Your task to perform on an android device: allow cookies in the chrome app Image 0: 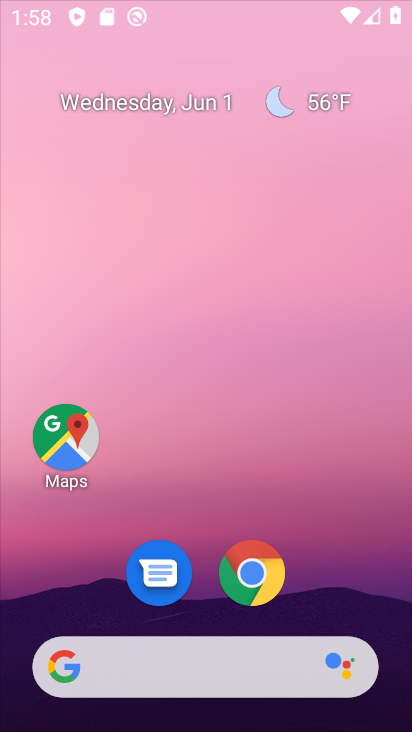
Step 0: drag from (208, 580) to (277, 91)
Your task to perform on an android device: allow cookies in the chrome app Image 1: 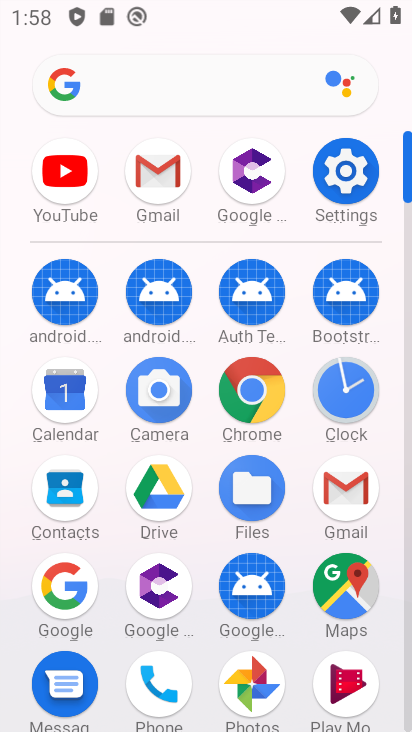
Step 1: click (244, 401)
Your task to perform on an android device: allow cookies in the chrome app Image 2: 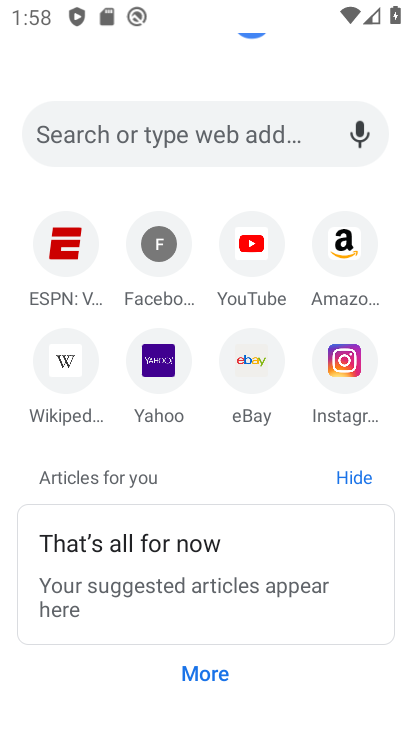
Step 2: drag from (238, 76) to (224, 462)
Your task to perform on an android device: allow cookies in the chrome app Image 3: 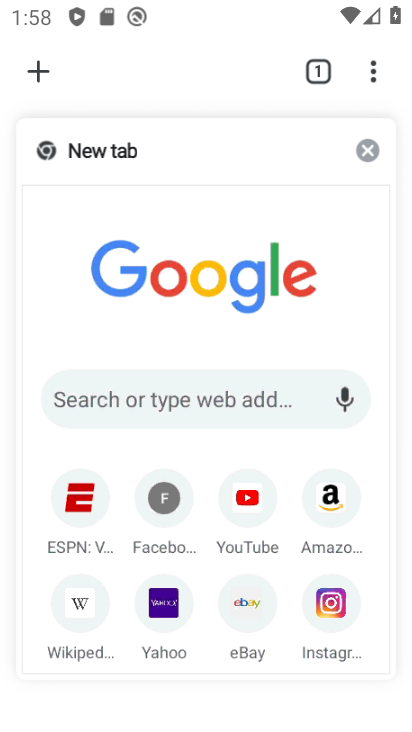
Step 3: click (282, 233)
Your task to perform on an android device: allow cookies in the chrome app Image 4: 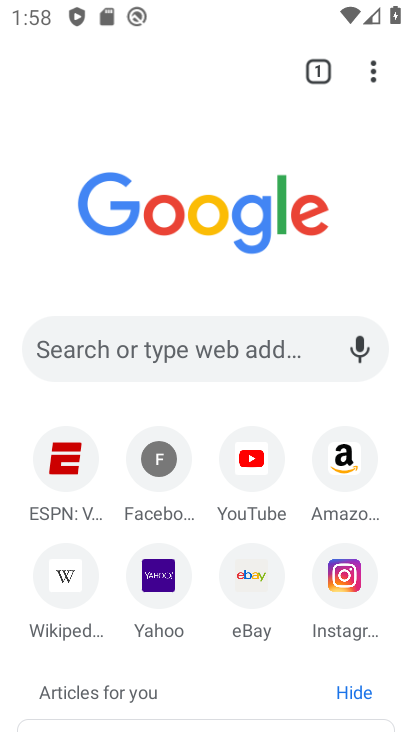
Step 4: click (368, 71)
Your task to perform on an android device: allow cookies in the chrome app Image 5: 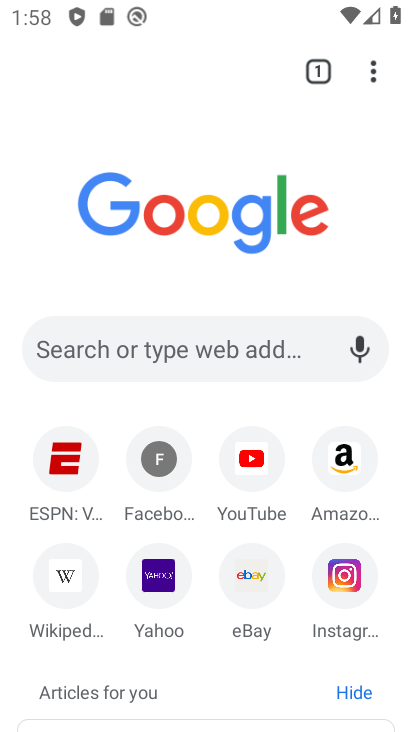
Step 5: click (371, 80)
Your task to perform on an android device: allow cookies in the chrome app Image 6: 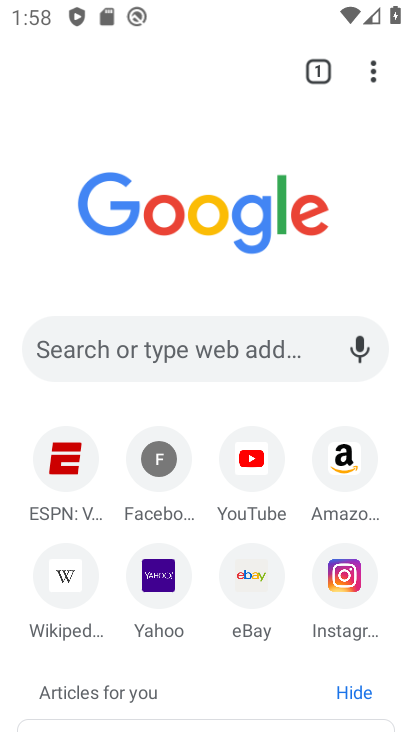
Step 6: click (367, 86)
Your task to perform on an android device: allow cookies in the chrome app Image 7: 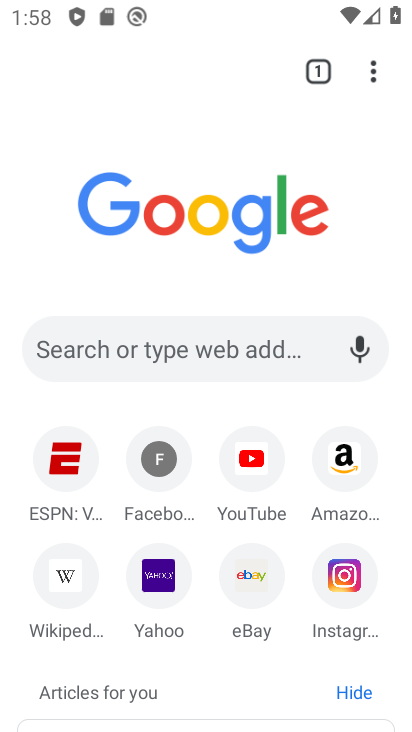
Step 7: drag from (367, 74) to (165, 587)
Your task to perform on an android device: allow cookies in the chrome app Image 8: 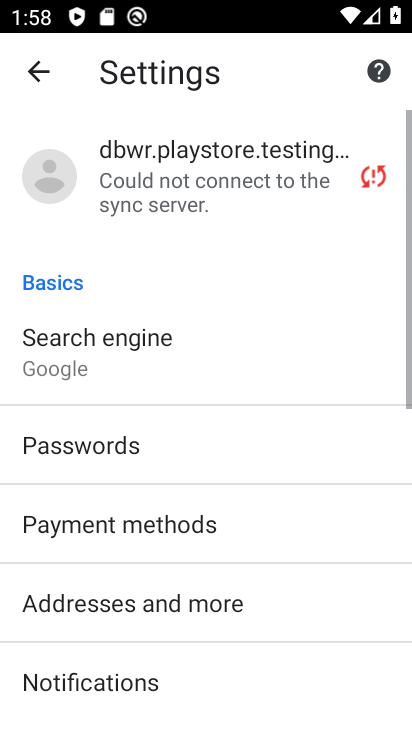
Step 8: drag from (167, 579) to (240, 224)
Your task to perform on an android device: allow cookies in the chrome app Image 9: 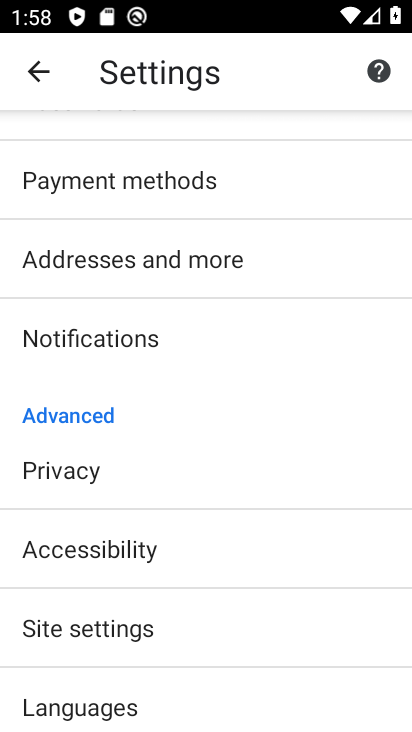
Step 9: click (104, 621)
Your task to perform on an android device: allow cookies in the chrome app Image 10: 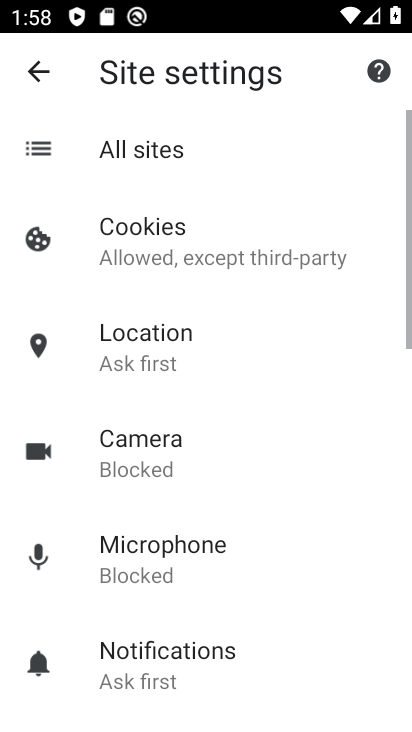
Step 10: click (199, 252)
Your task to perform on an android device: allow cookies in the chrome app Image 11: 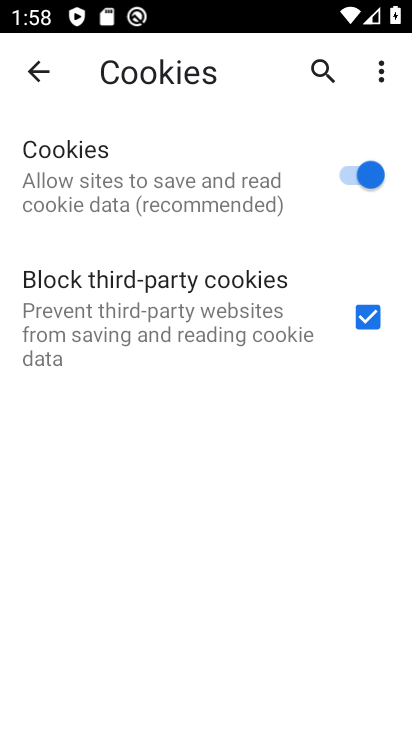
Step 11: task complete